Your task to perform on an android device: Show me the alarms in the clock app Image 0: 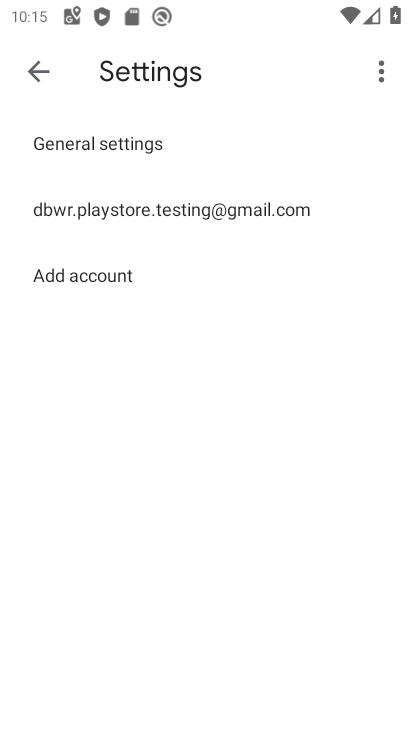
Step 0: press home button
Your task to perform on an android device: Show me the alarms in the clock app Image 1: 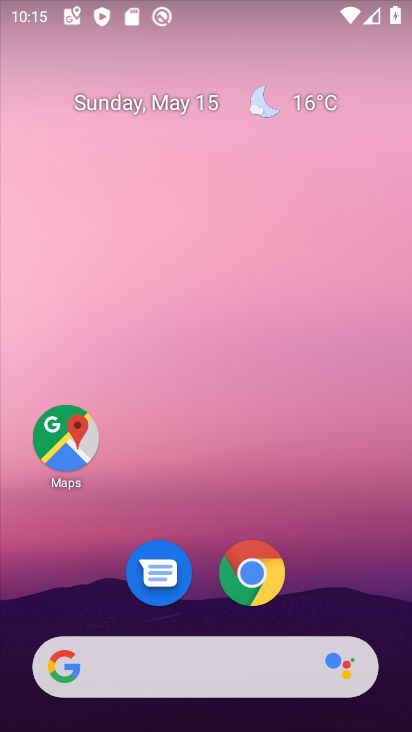
Step 1: drag from (348, 596) to (341, 97)
Your task to perform on an android device: Show me the alarms in the clock app Image 2: 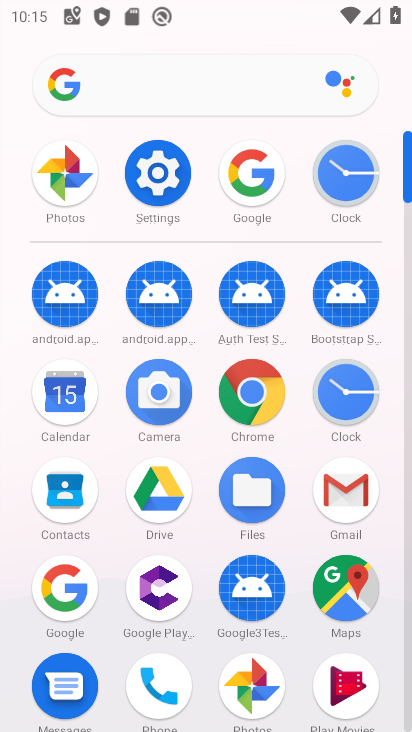
Step 2: click (336, 184)
Your task to perform on an android device: Show me the alarms in the clock app Image 3: 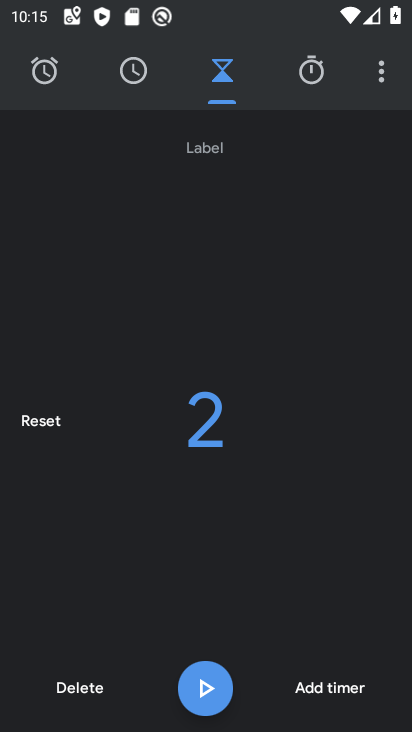
Step 3: click (51, 66)
Your task to perform on an android device: Show me the alarms in the clock app Image 4: 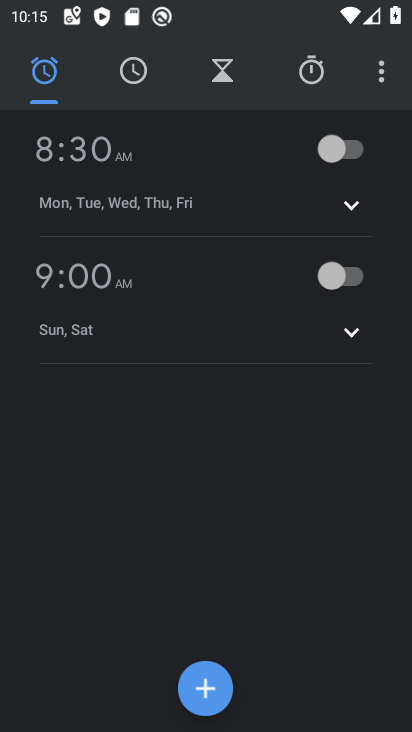
Step 4: task complete